Your task to perform on an android device: Go to settings Image 0: 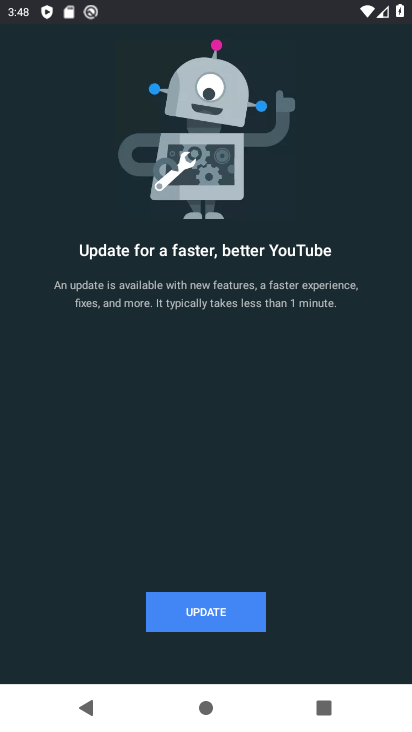
Step 0: click (250, 557)
Your task to perform on an android device: Go to settings Image 1: 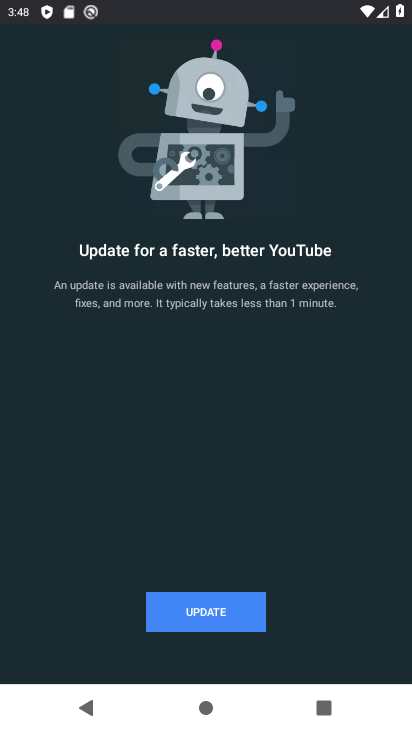
Step 1: press home button
Your task to perform on an android device: Go to settings Image 2: 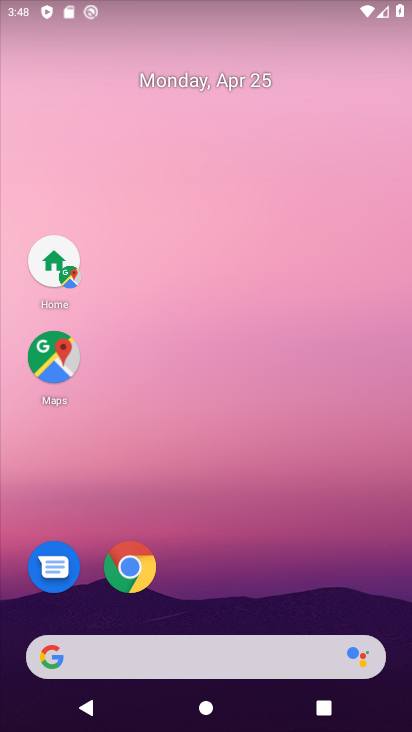
Step 2: drag from (207, 557) to (220, 162)
Your task to perform on an android device: Go to settings Image 3: 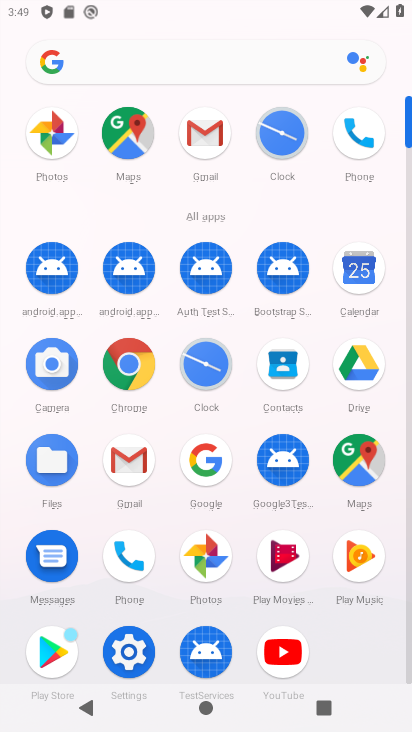
Step 3: click (121, 650)
Your task to perform on an android device: Go to settings Image 4: 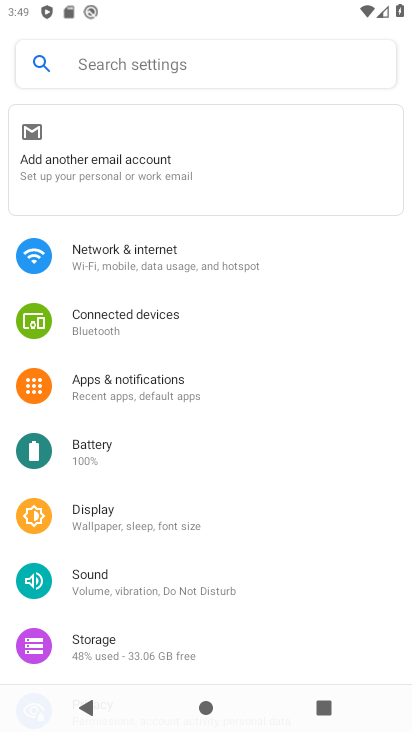
Step 4: task complete